Your task to perform on an android device: delete a single message in the gmail app Image 0: 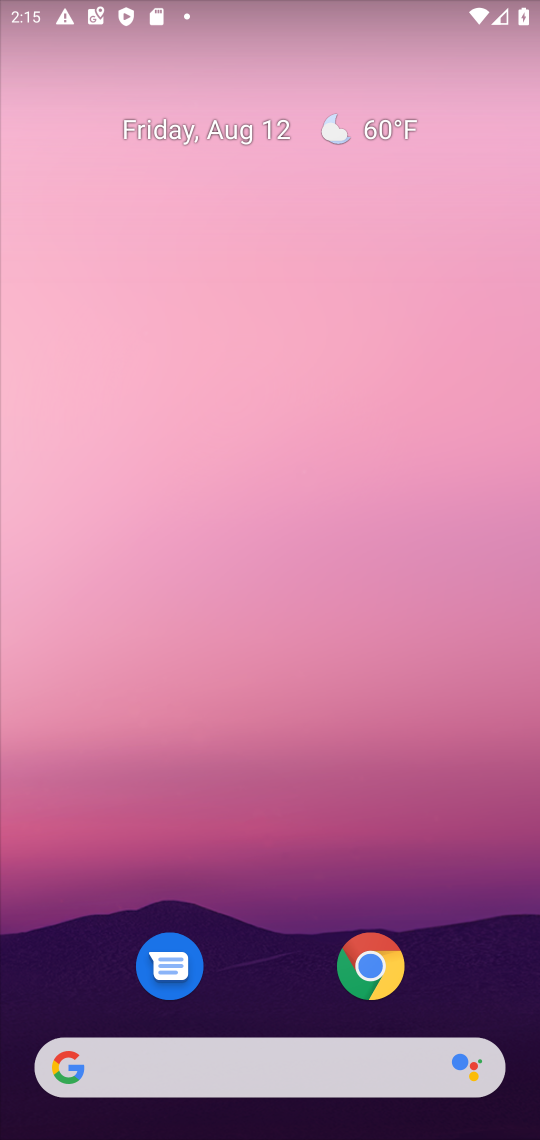
Step 0: drag from (277, 980) to (225, 156)
Your task to perform on an android device: delete a single message in the gmail app Image 1: 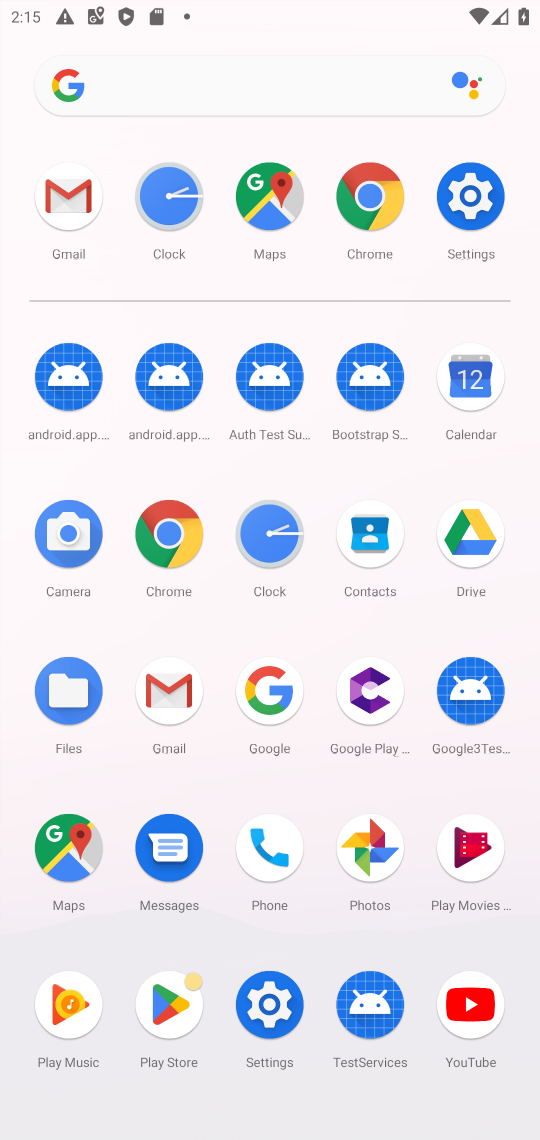
Step 1: click (171, 683)
Your task to perform on an android device: delete a single message in the gmail app Image 2: 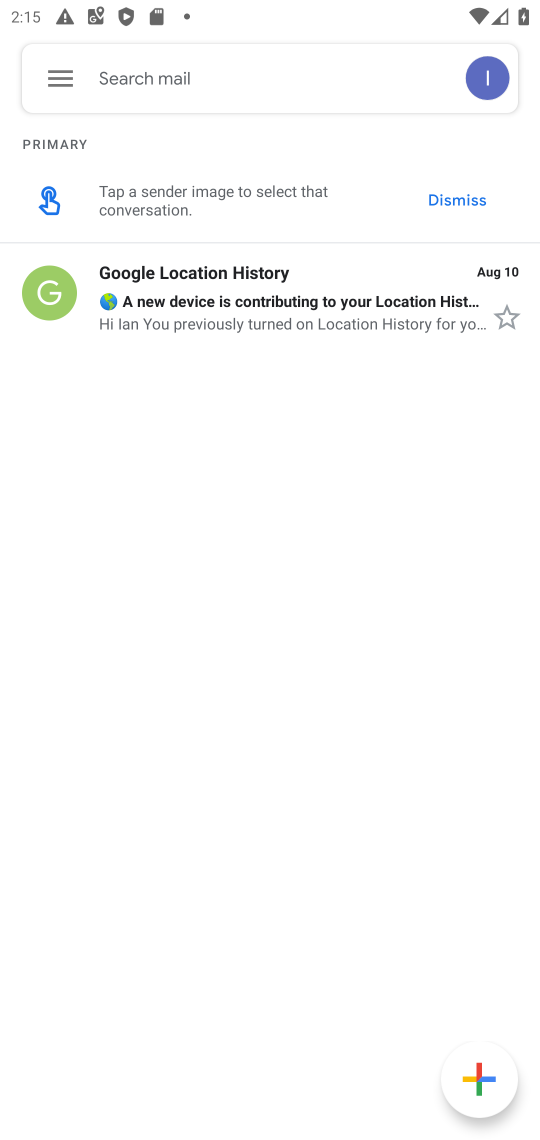
Step 2: click (280, 288)
Your task to perform on an android device: delete a single message in the gmail app Image 3: 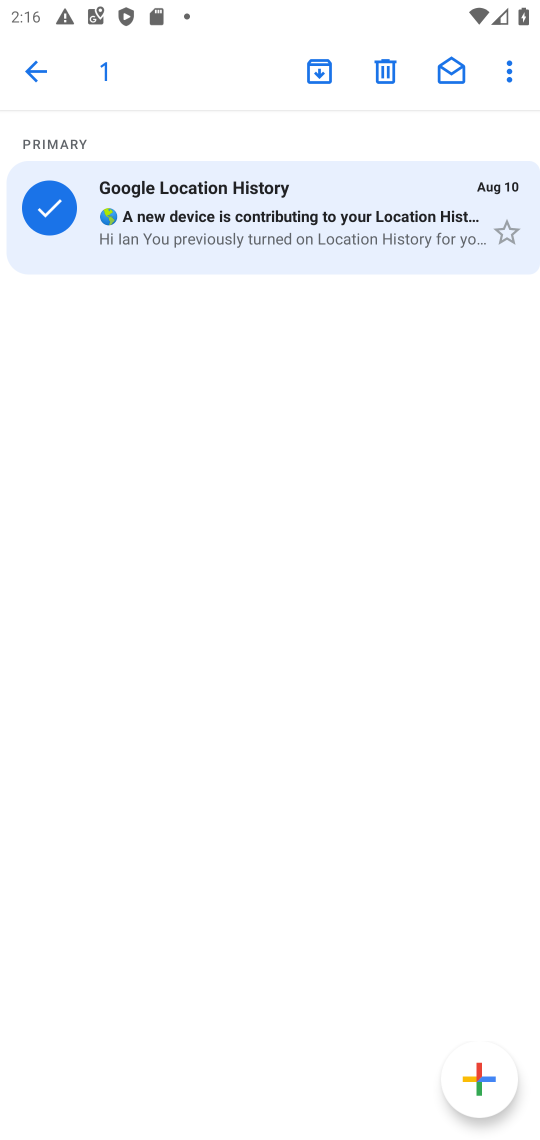
Step 3: click (388, 72)
Your task to perform on an android device: delete a single message in the gmail app Image 4: 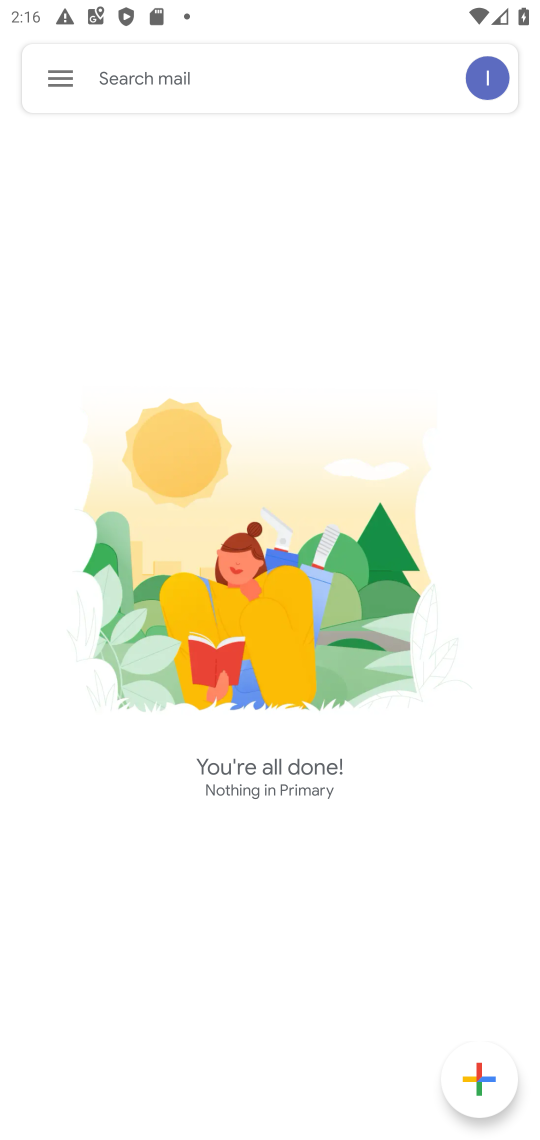
Step 4: task complete